Your task to perform on an android device: open app "Messages" (install if not already installed) Image 0: 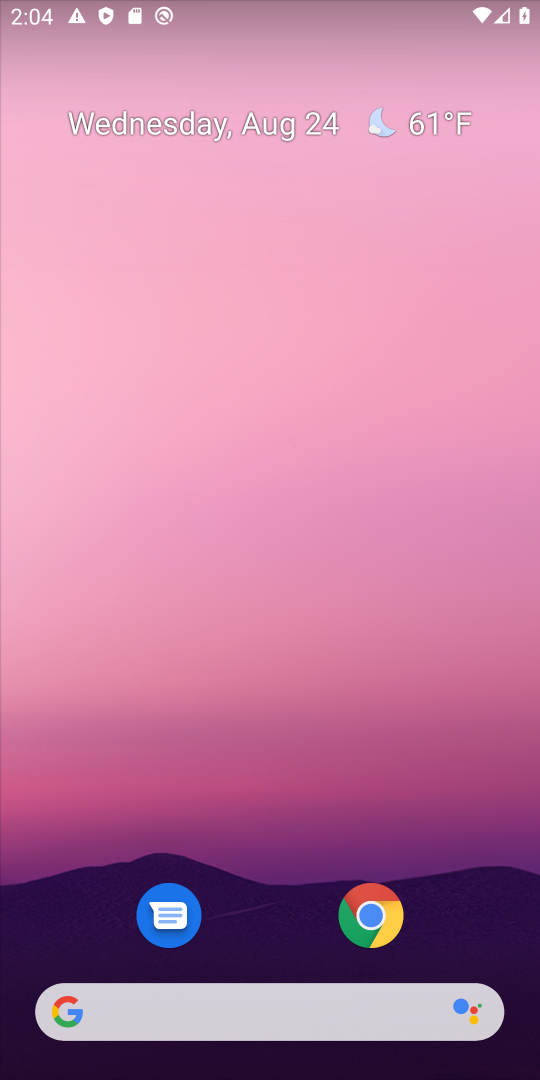
Step 0: drag from (309, 594) to (342, 326)
Your task to perform on an android device: open app "Messages" (install if not already installed) Image 1: 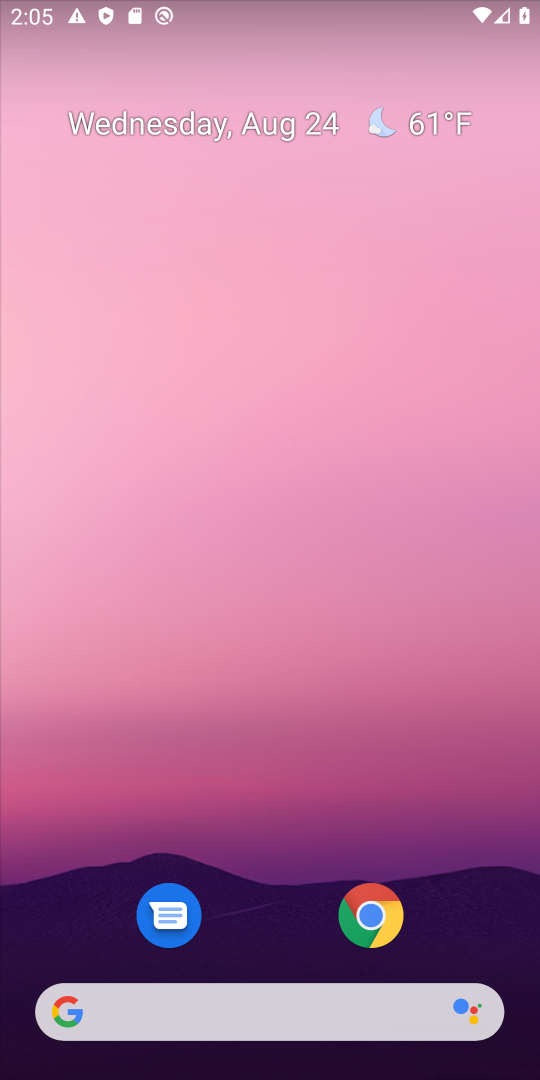
Step 1: drag from (284, 869) to (331, 205)
Your task to perform on an android device: open app "Messages" (install if not already installed) Image 2: 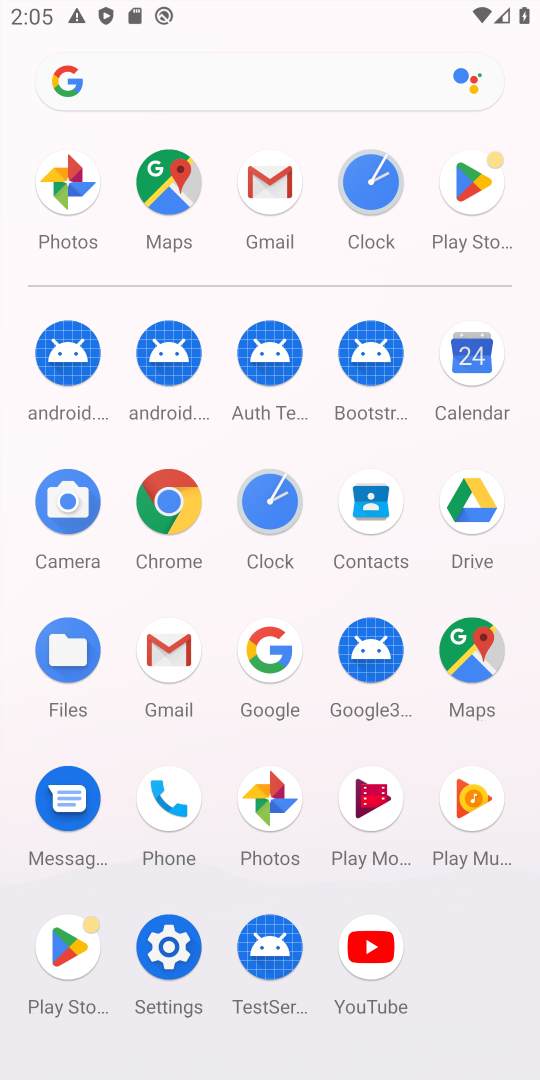
Step 2: click (463, 193)
Your task to perform on an android device: open app "Messages" (install if not already installed) Image 3: 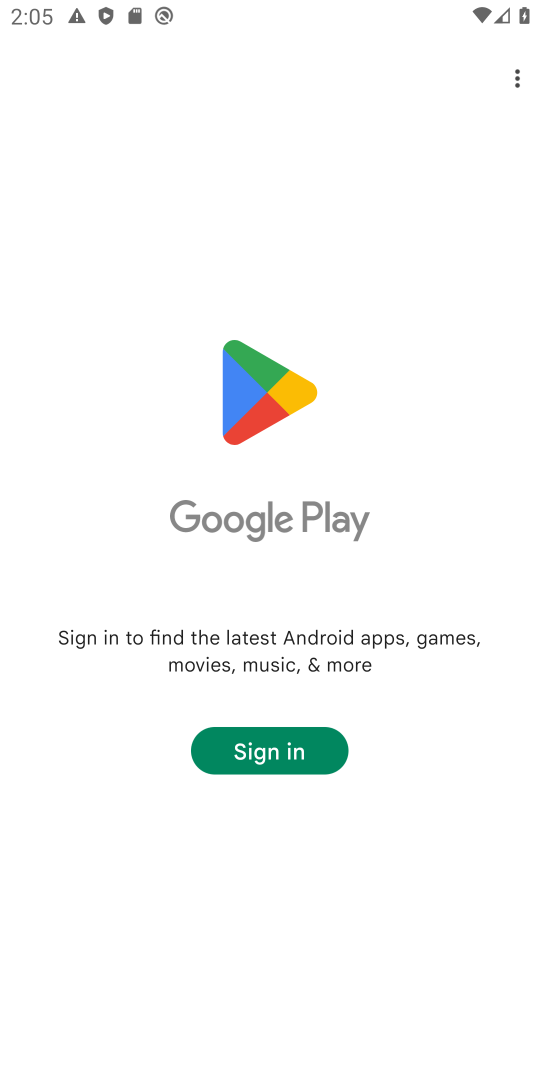
Step 3: task complete